Your task to perform on an android device: turn off data saver in the chrome app Image 0: 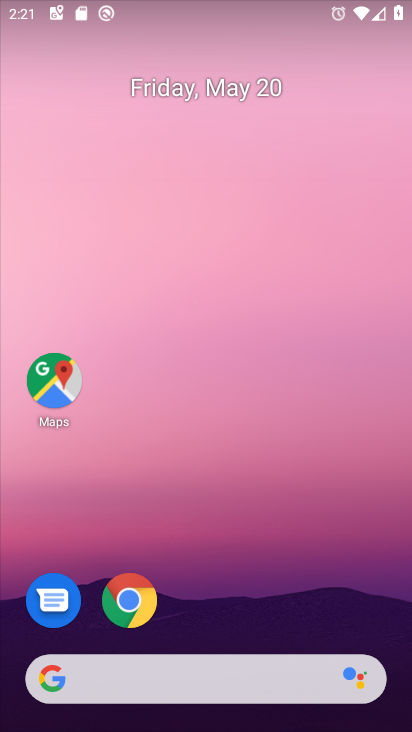
Step 0: drag from (240, 626) to (286, 154)
Your task to perform on an android device: turn off data saver in the chrome app Image 1: 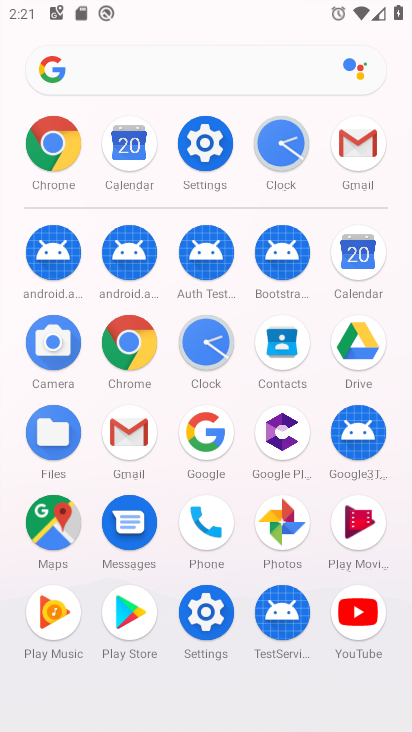
Step 1: click (136, 346)
Your task to perform on an android device: turn off data saver in the chrome app Image 2: 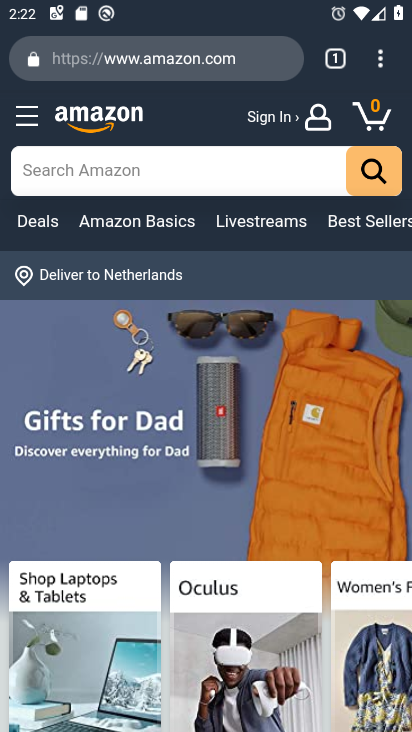
Step 2: click (385, 55)
Your task to perform on an android device: turn off data saver in the chrome app Image 3: 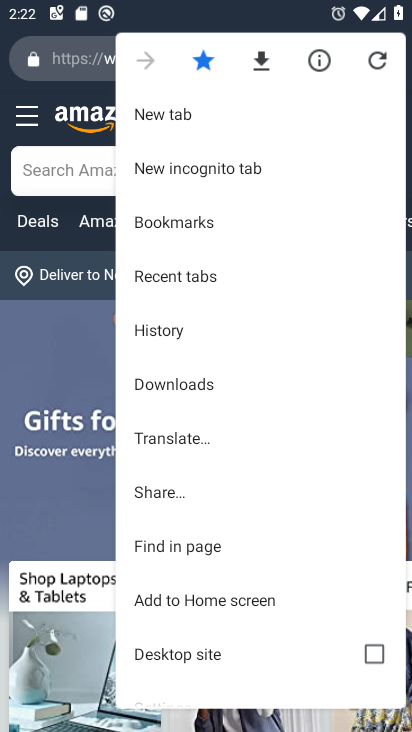
Step 3: drag from (192, 565) to (218, 354)
Your task to perform on an android device: turn off data saver in the chrome app Image 4: 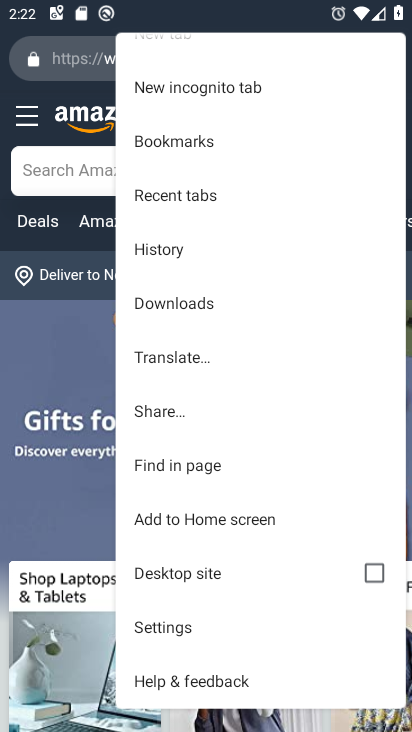
Step 4: click (174, 620)
Your task to perform on an android device: turn off data saver in the chrome app Image 5: 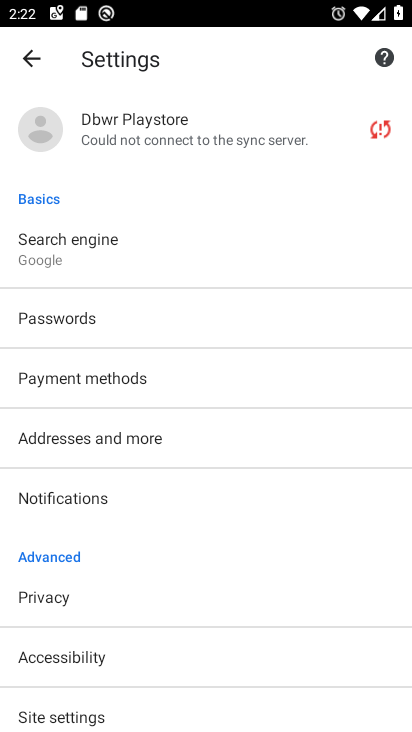
Step 5: drag from (100, 594) to (158, 303)
Your task to perform on an android device: turn off data saver in the chrome app Image 6: 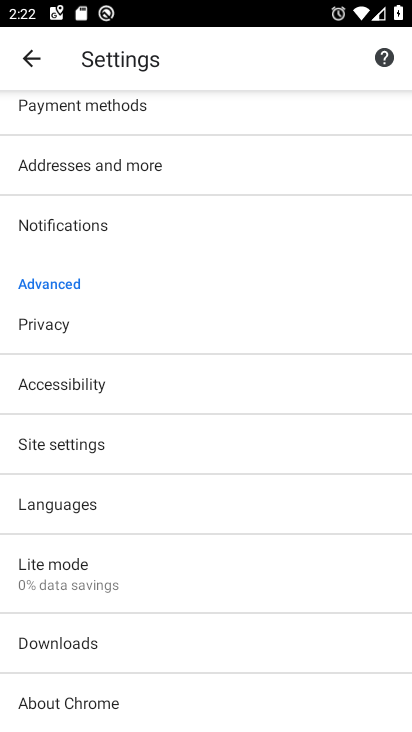
Step 6: click (64, 566)
Your task to perform on an android device: turn off data saver in the chrome app Image 7: 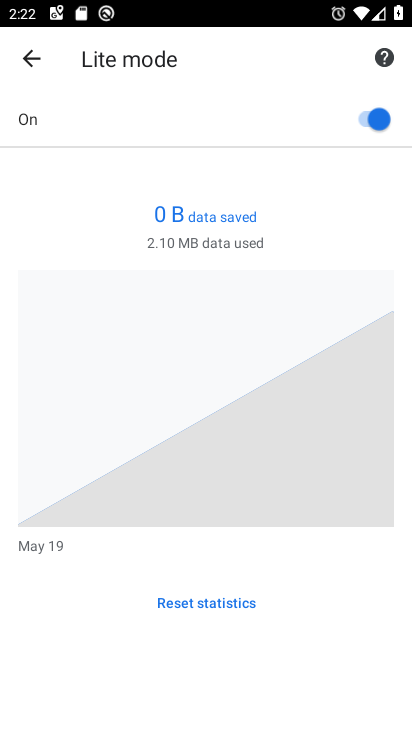
Step 7: click (349, 124)
Your task to perform on an android device: turn off data saver in the chrome app Image 8: 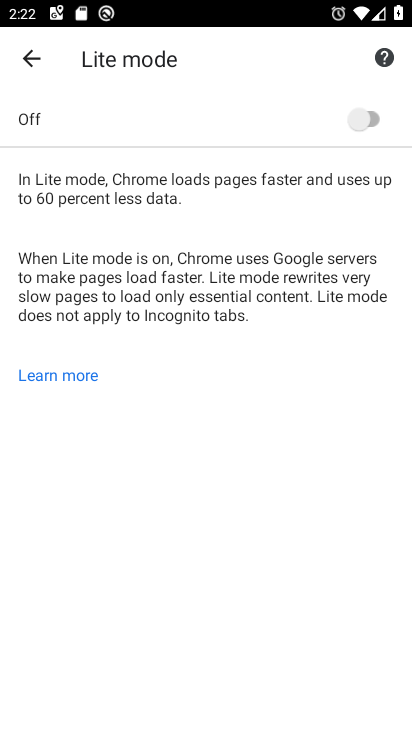
Step 8: task complete